Your task to perform on an android device: turn off location Image 0: 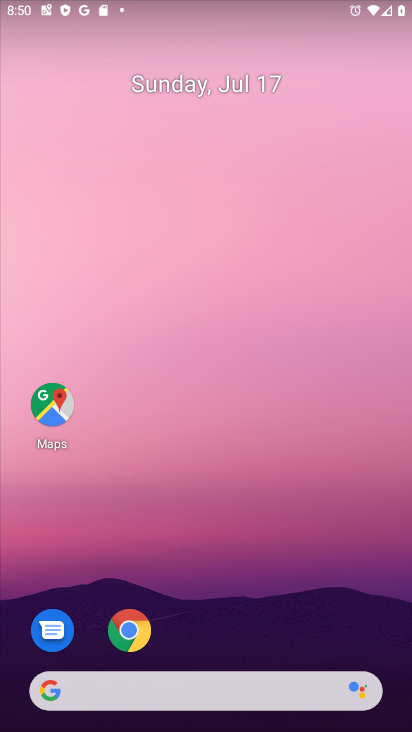
Step 0: drag from (202, 582) to (143, 76)
Your task to perform on an android device: turn off location Image 1: 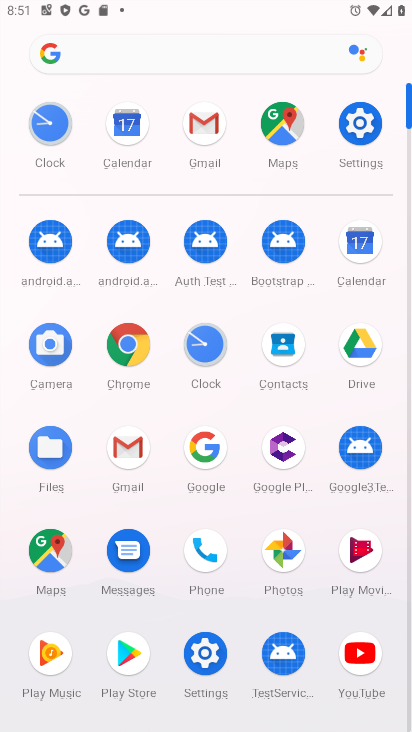
Step 1: click (362, 156)
Your task to perform on an android device: turn off location Image 2: 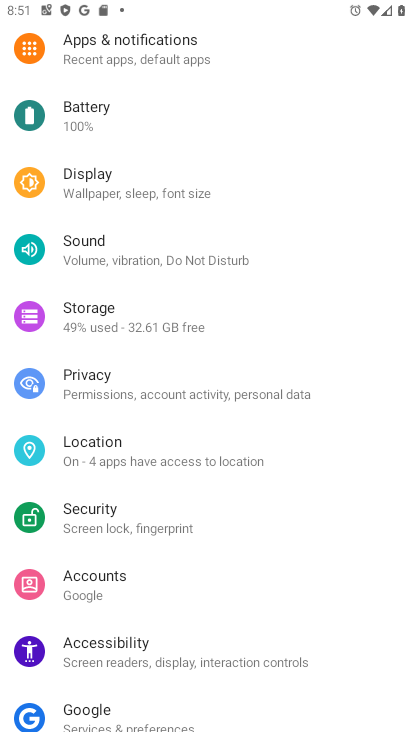
Step 2: click (90, 459)
Your task to perform on an android device: turn off location Image 3: 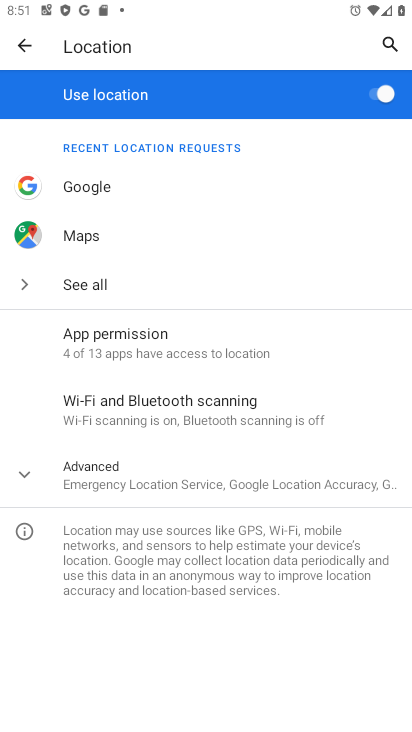
Step 3: click (370, 96)
Your task to perform on an android device: turn off location Image 4: 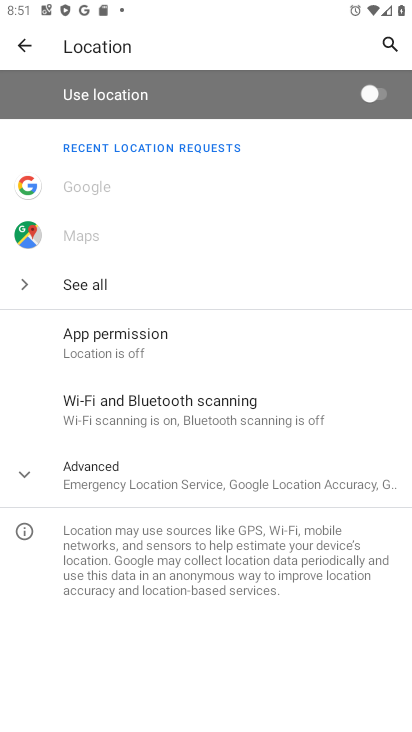
Step 4: task complete